Your task to perform on an android device: Open location settings Image 0: 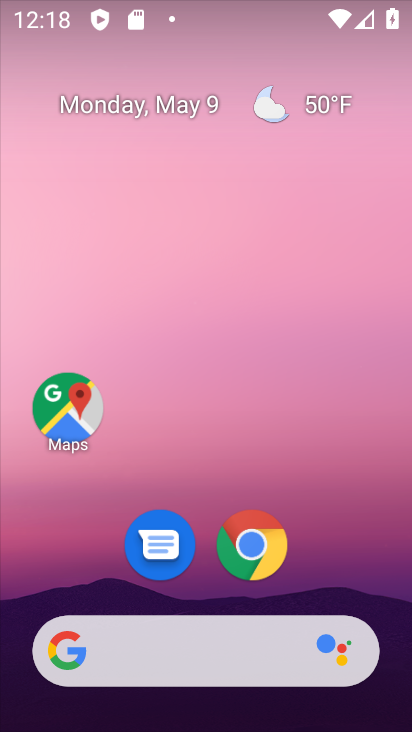
Step 0: drag from (200, 318) to (166, 74)
Your task to perform on an android device: Open location settings Image 1: 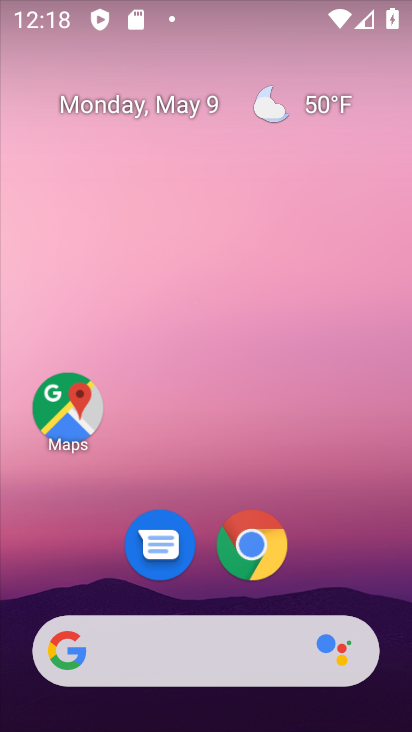
Step 1: drag from (212, 572) to (208, 105)
Your task to perform on an android device: Open location settings Image 2: 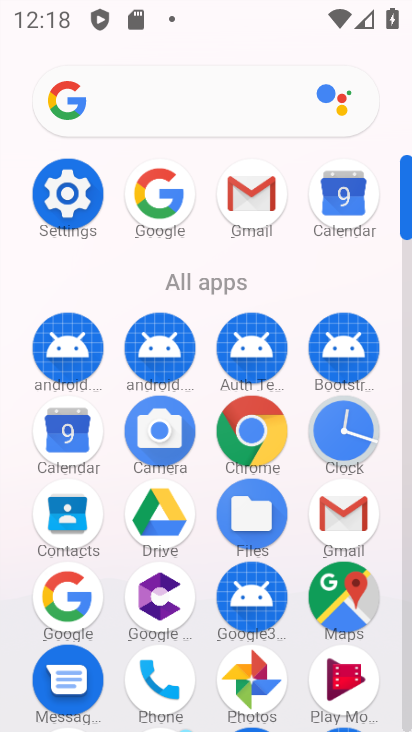
Step 2: click (94, 192)
Your task to perform on an android device: Open location settings Image 3: 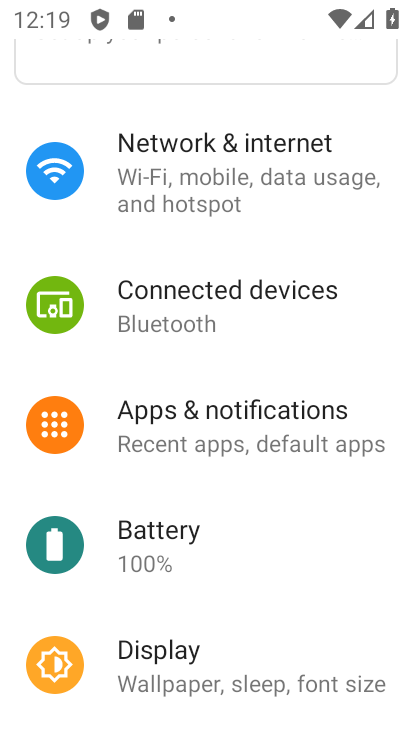
Step 3: drag from (205, 628) to (170, 265)
Your task to perform on an android device: Open location settings Image 4: 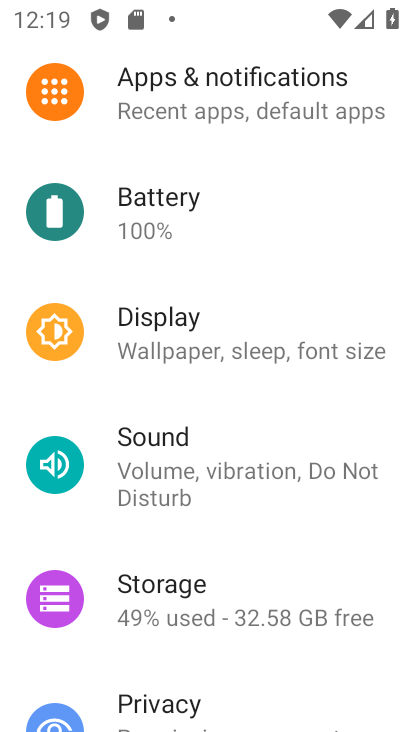
Step 4: drag from (188, 651) to (197, 305)
Your task to perform on an android device: Open location settings Image 5: 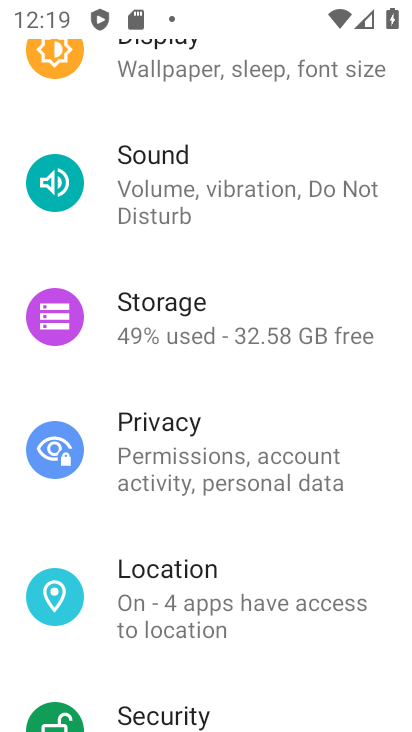
Step 5: click (178, 603)
Your task to perform on an android device: Open location settings Image 6: 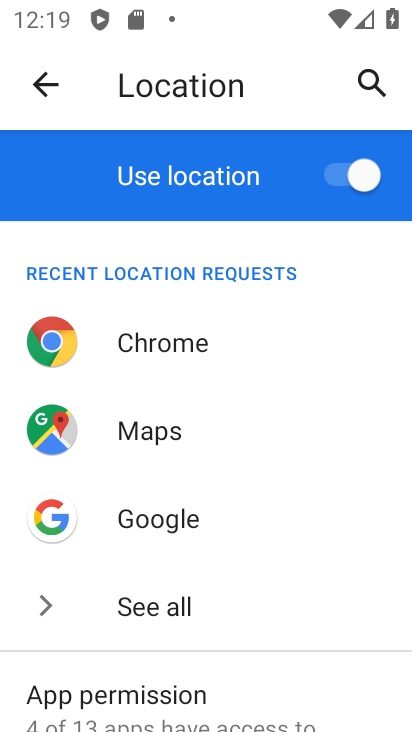
Step 6: task complete